Your task to perform on an android device: move a message to another label in the gmail app Image 0: 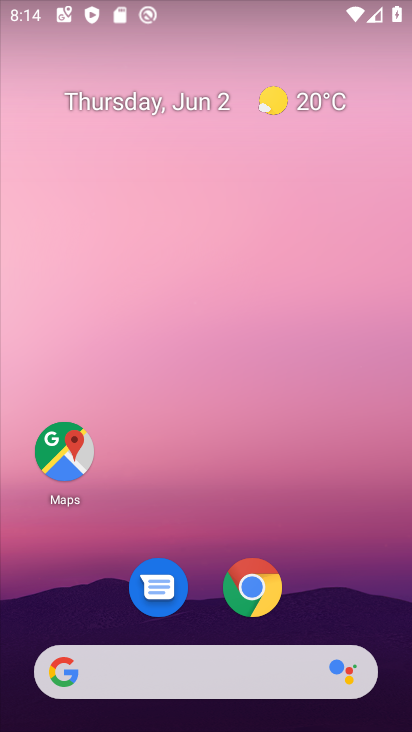
Step 0: drag from (202, 637) to (236, 92)
Your task to perform on an android device: move a message to another label in the gmail app Image 1: 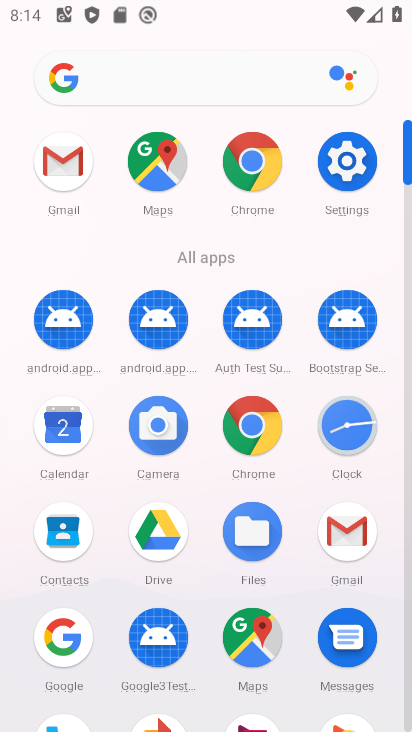
Step 1: click (86, 175)
Your task to perform on an android device: move a message to another label in the gmail app Image 2: 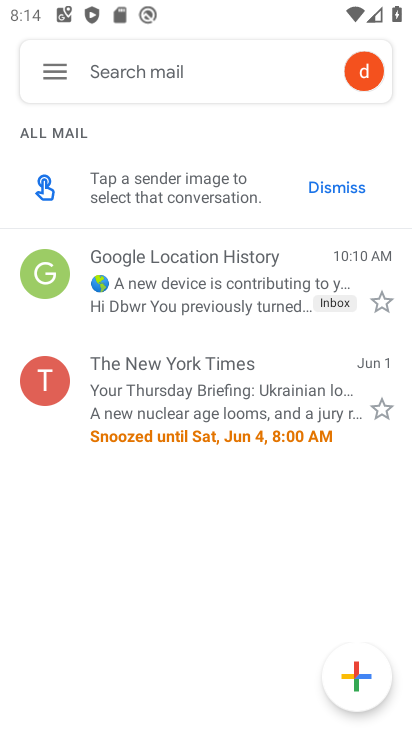
Step 2: click (46, 285)
Your task to perform on an android device: move a message to another label in the gmail app Image 3: 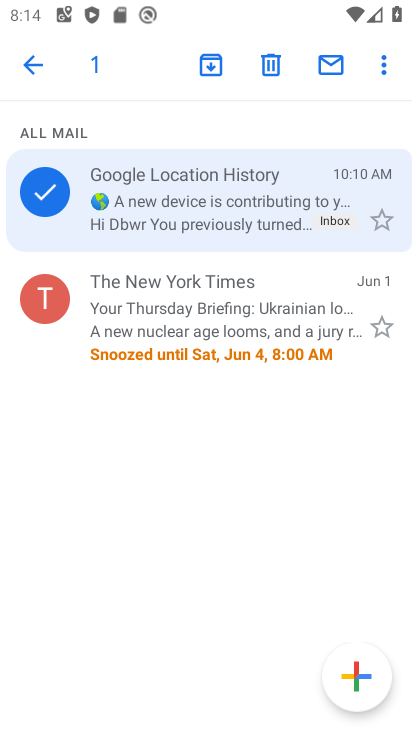
Step 3: click (394, 65)
Your task to perform on an android device: move a message to another label in the gmail app Image 4: 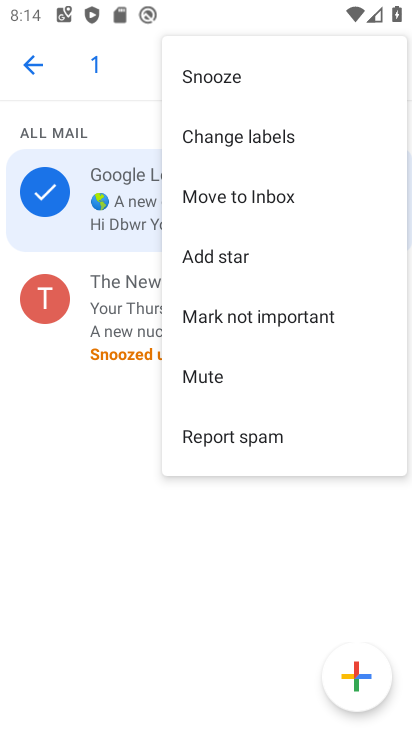
Step 4: click (296, 142)
Your task to perform on an android device: move a message to another label in the gmail app Image 5: 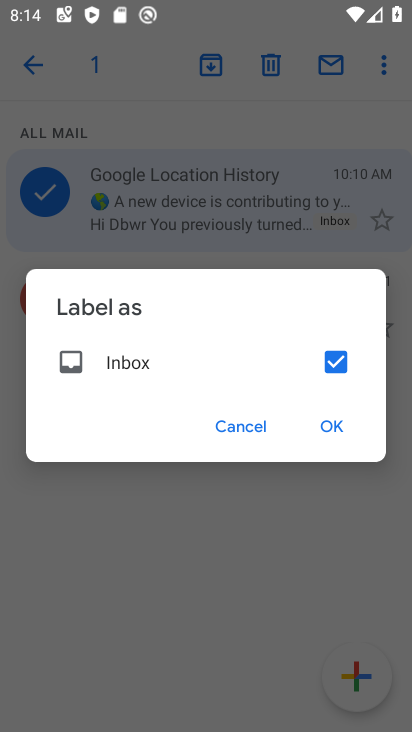
Step 5: task complete